Your task to perform on an android device: What is the news today? Image 0: 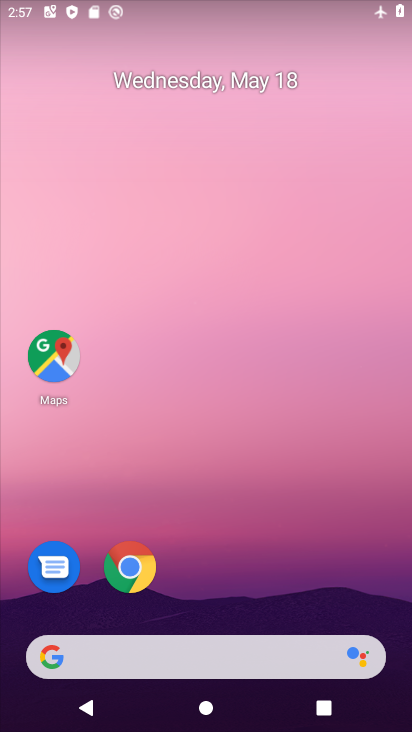
Step 0: click (127, 557)
Your task to perform on an android device: What is the news today? Image 1: 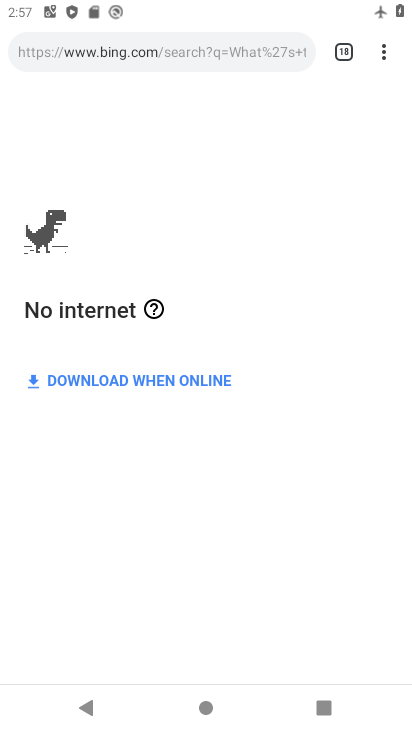
Step 1: click (361, 45)
Your task to perform on an android device: What is the news today? Image 2: 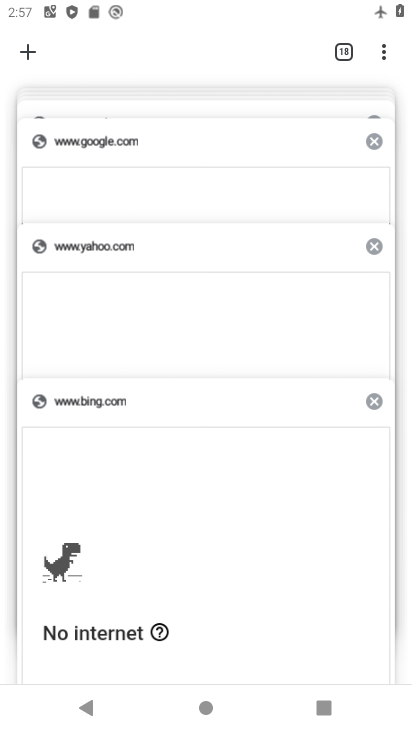
Step 2: click (371, 401)
Your task to perform on an android device: What is the news today? Image 3: 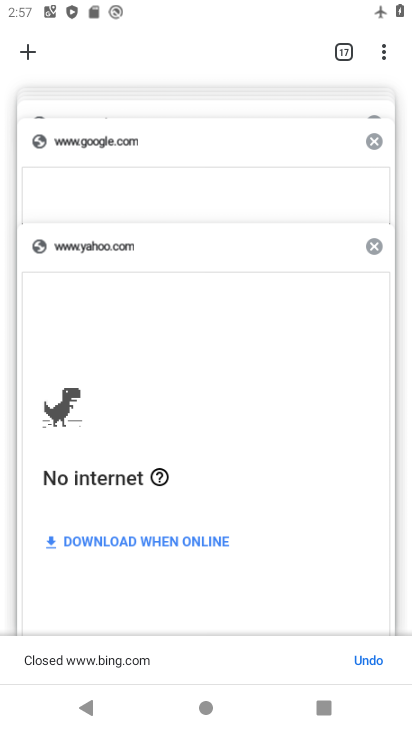
Step 3: click (11, 58)
Your task to perform on an android device: What is the news today? Image 4: 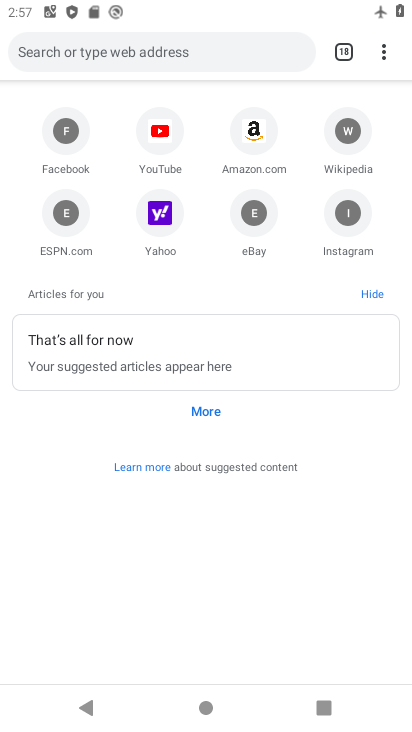
Step 4: click (153, 47)
Your task to perform on an android device: What is the news today? Image 5: 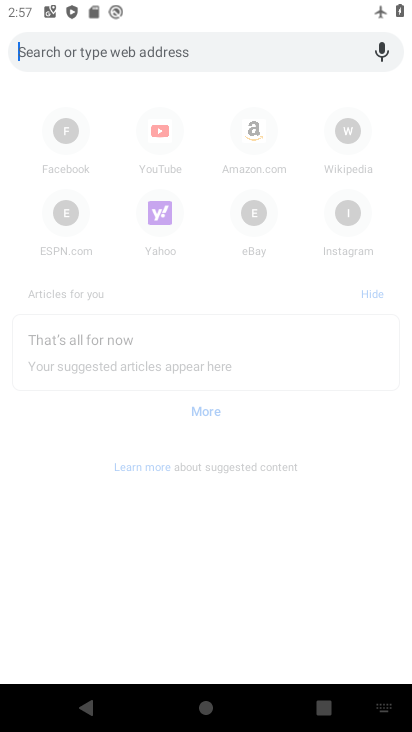
Step 5: type "What is the news today?"
Your task to perform on an android device: What is the news today? Image 6: 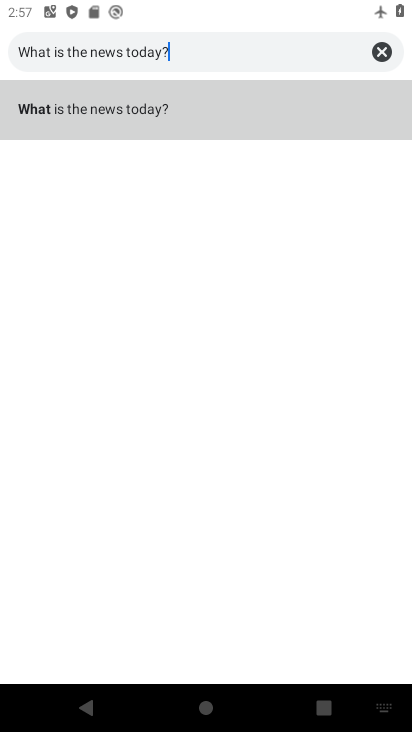
Step 6: click (246, 117)
Your task to perform on an android device: What is the news today? Image 7: 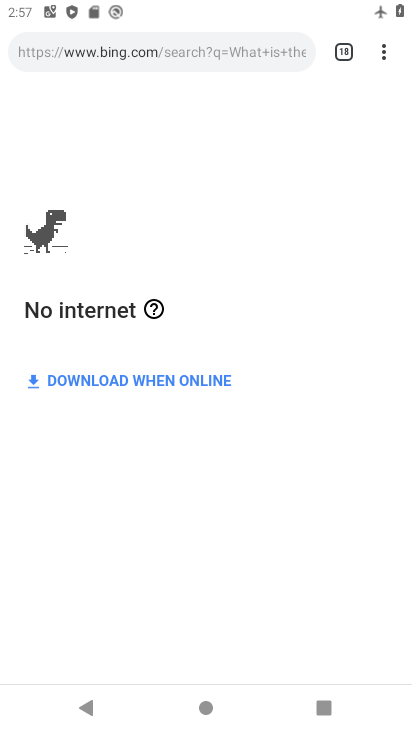
Step 7: task complete